Your task to perform on an android device: Go to Wikipedia Image 0: 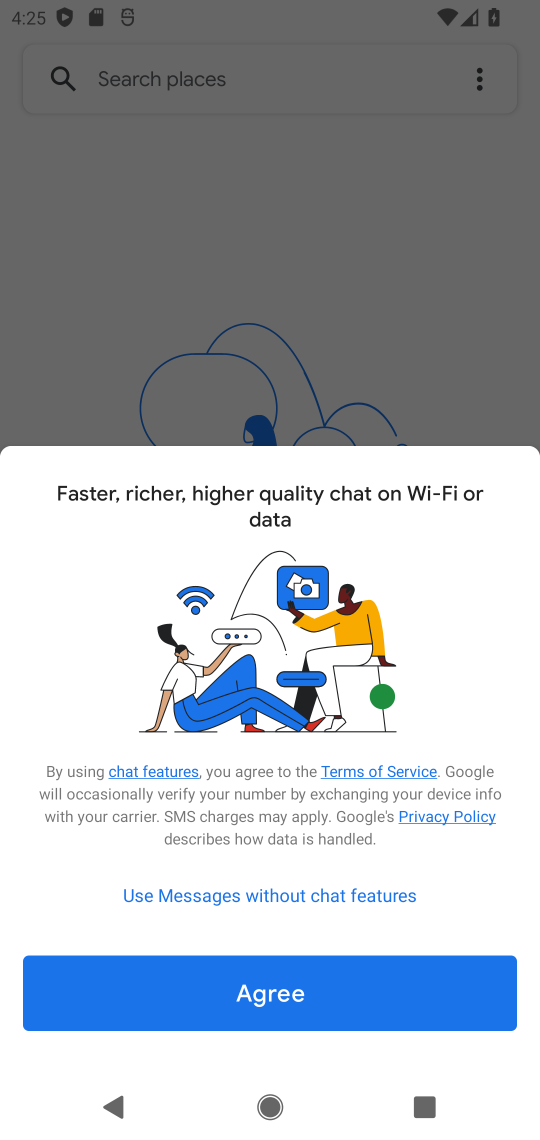
Step 0: press back button
Your task to perform on an android device: Go to Wikipedia Image 1: 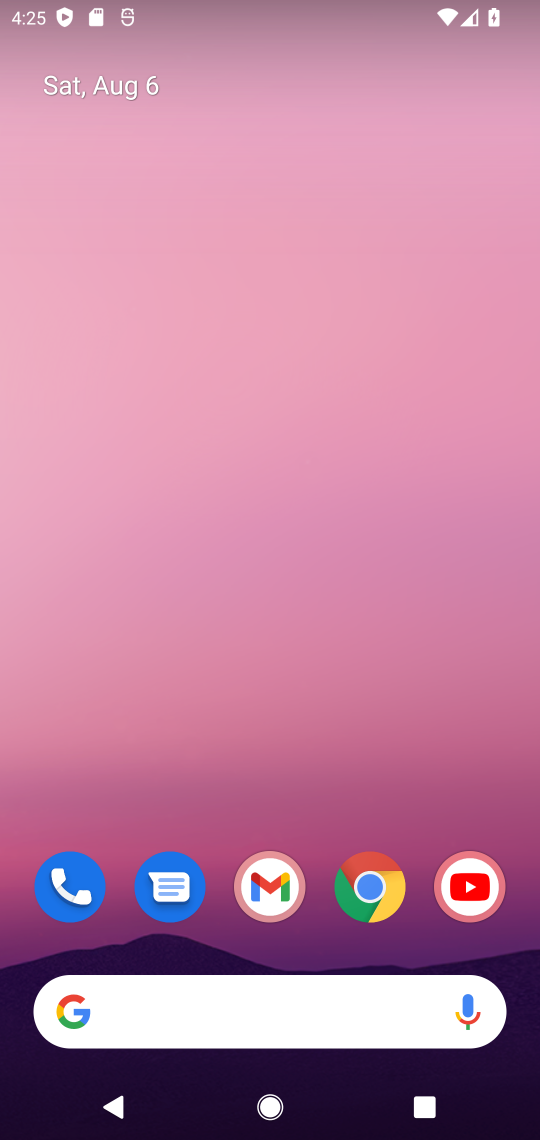
Step 1: press home button
Your task to perform on an android device: Go to Wikipedia Image 2: 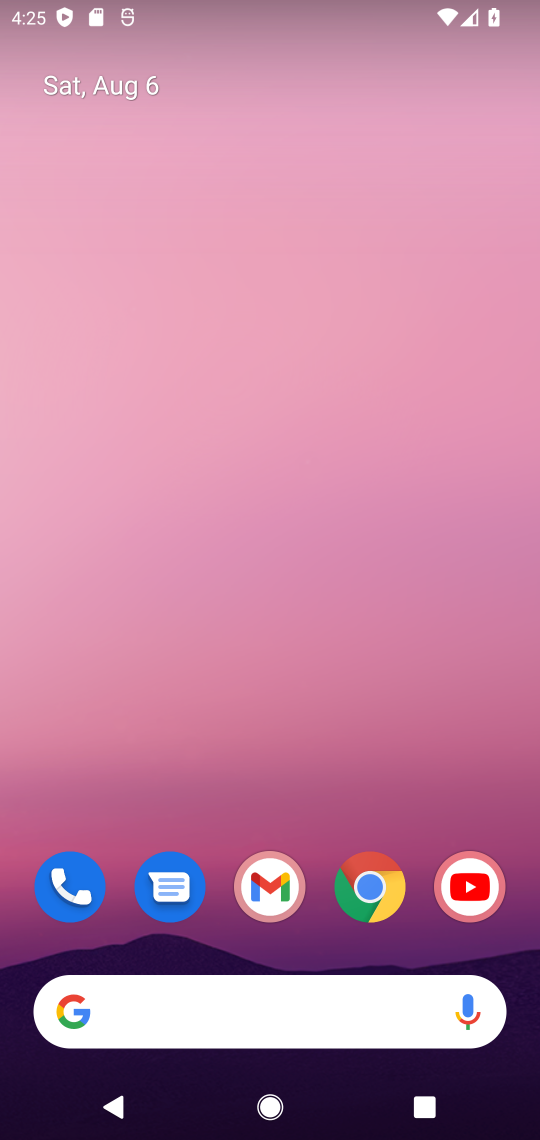
Step 2: click (344, 908)
Your task to perform on an android device: Go to Wikipedia Image 3: 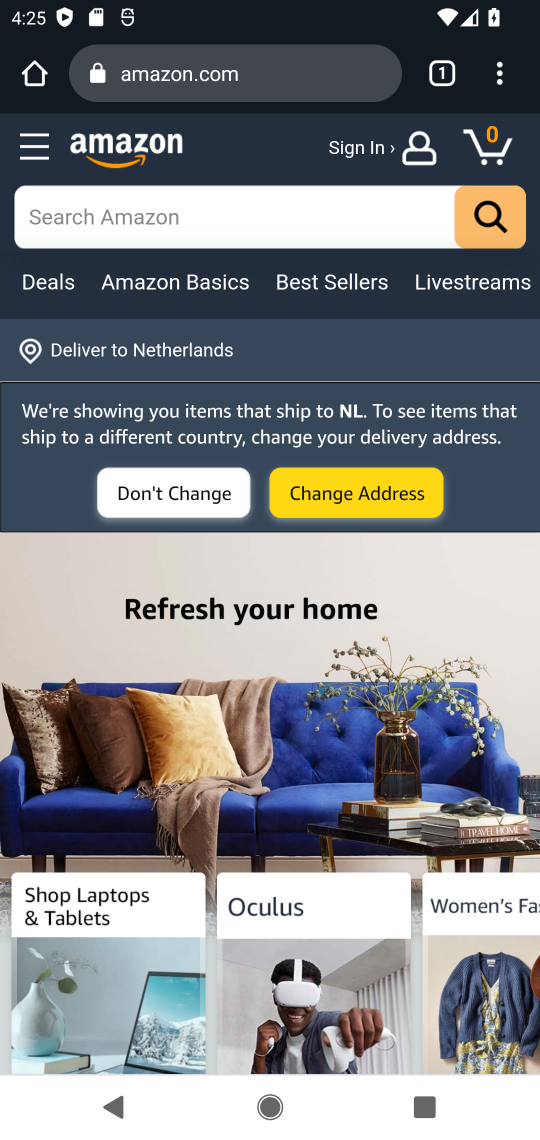
Step 3: click (178, 92)
Your task to perform on an android device: Go to Wikipedia Image 4: 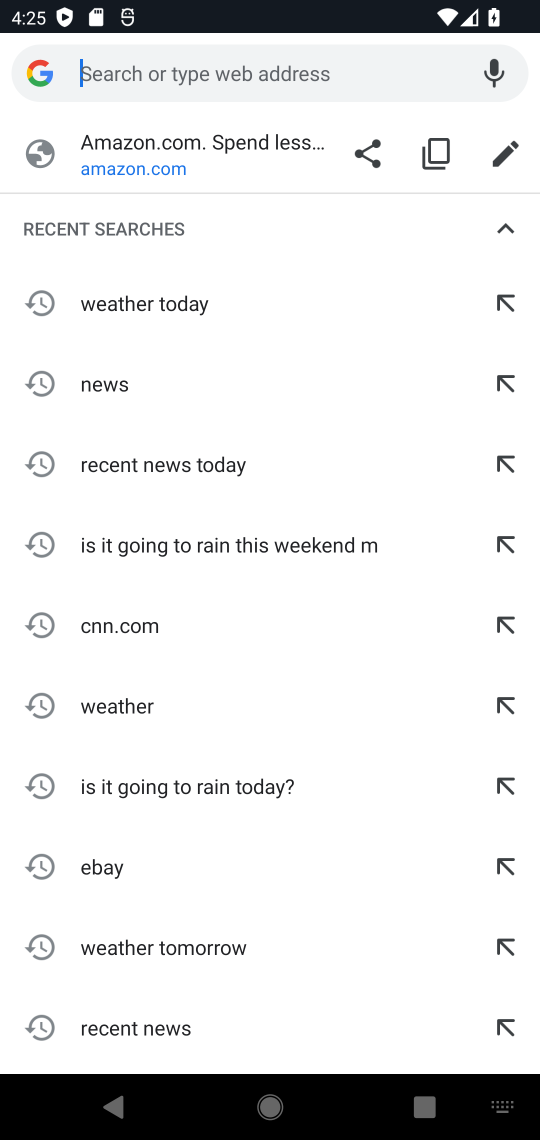
Step 4: type "wikipedia"
Your task to perform on an android device: Go to Wikipedia Image 5: 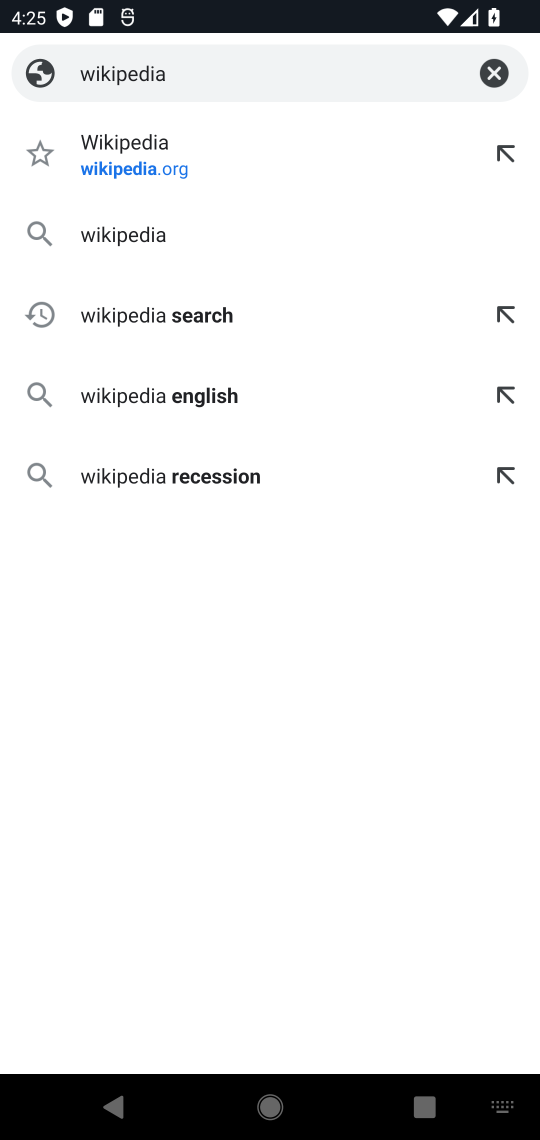
Step 5: click (147, 154)
Your task to perform on an android device: Go to Wikipedia Image 6: 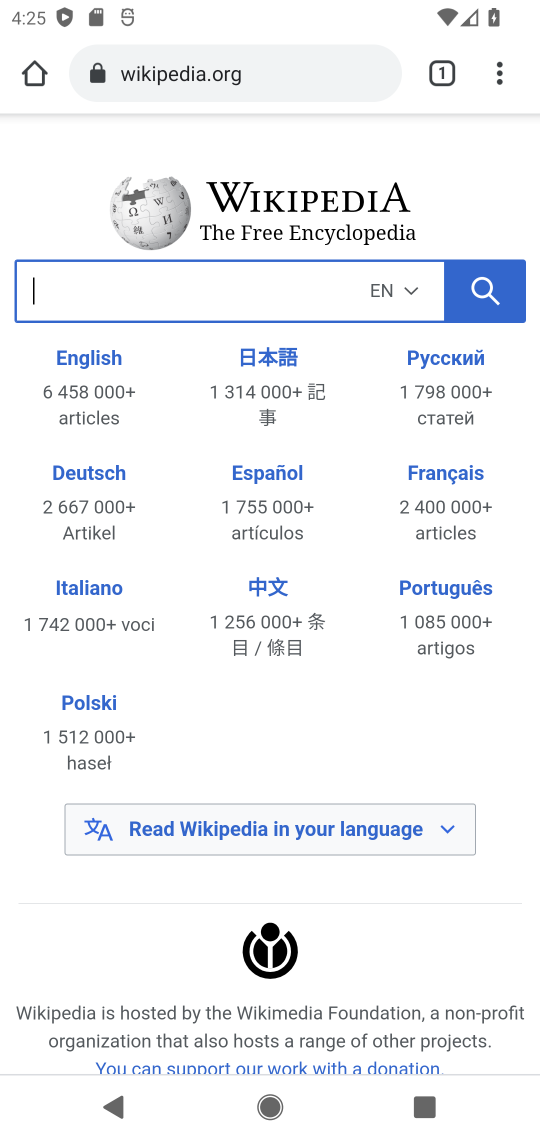
Step 6: task complete